Your task to perform on an android device: add a label to a message in the gmail app Image 0: 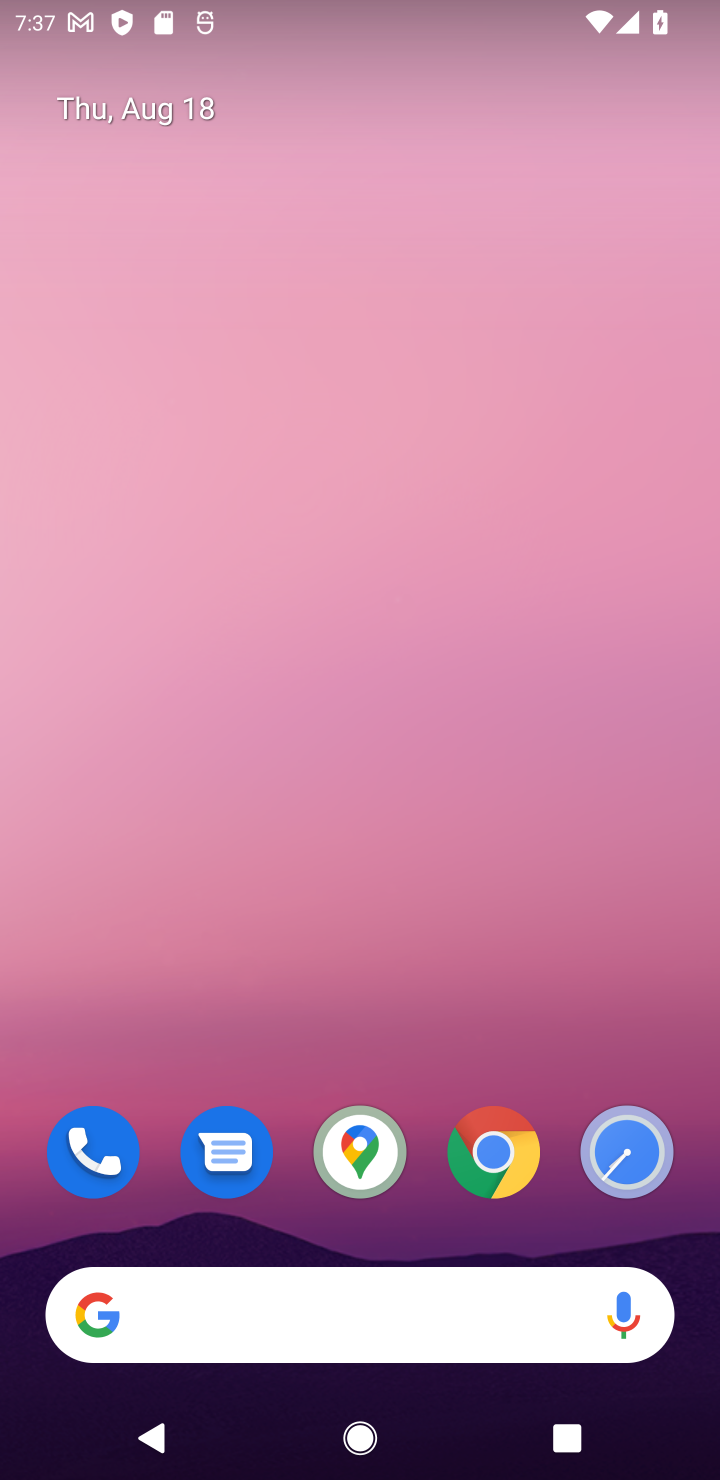
Step 0: drag from (445, 475) to (525, 2)
Your task to perform on an android device: add a label to a message in the gmail app Image 1: 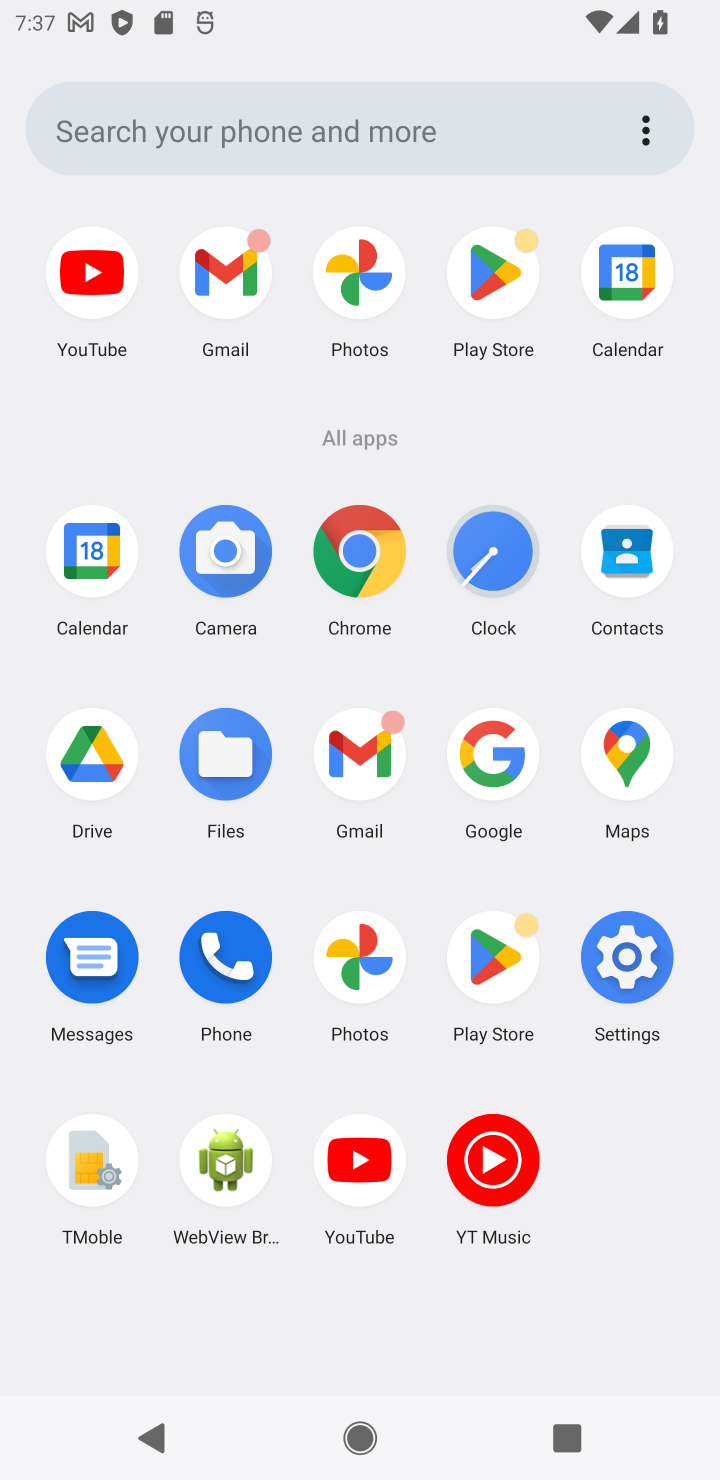
Step 1: click (236, 275)
Your task to perform on an android device: add a label to a message in the gmail app Image 2: 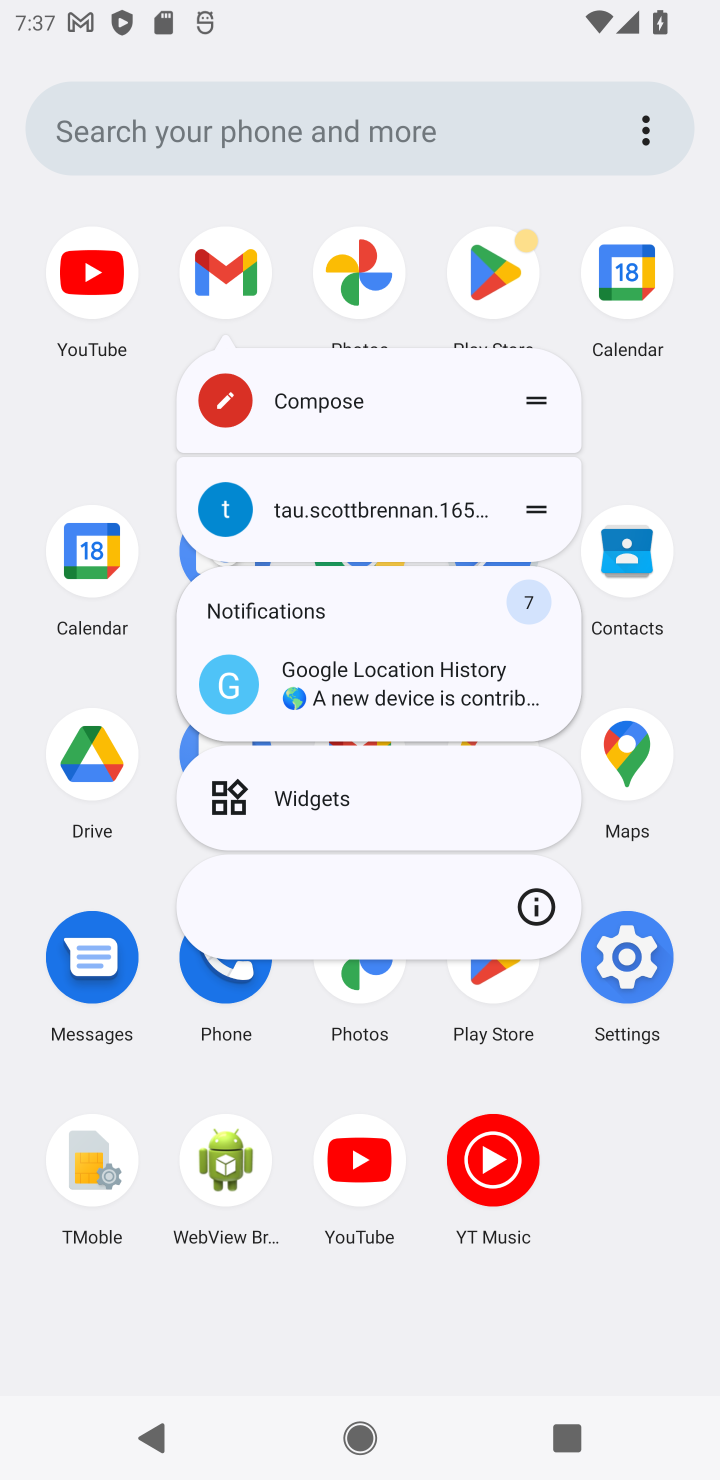
Step 2: click (236, 269)
Your task to perform on an android device: add a label to a message in the gmail app Image 3: 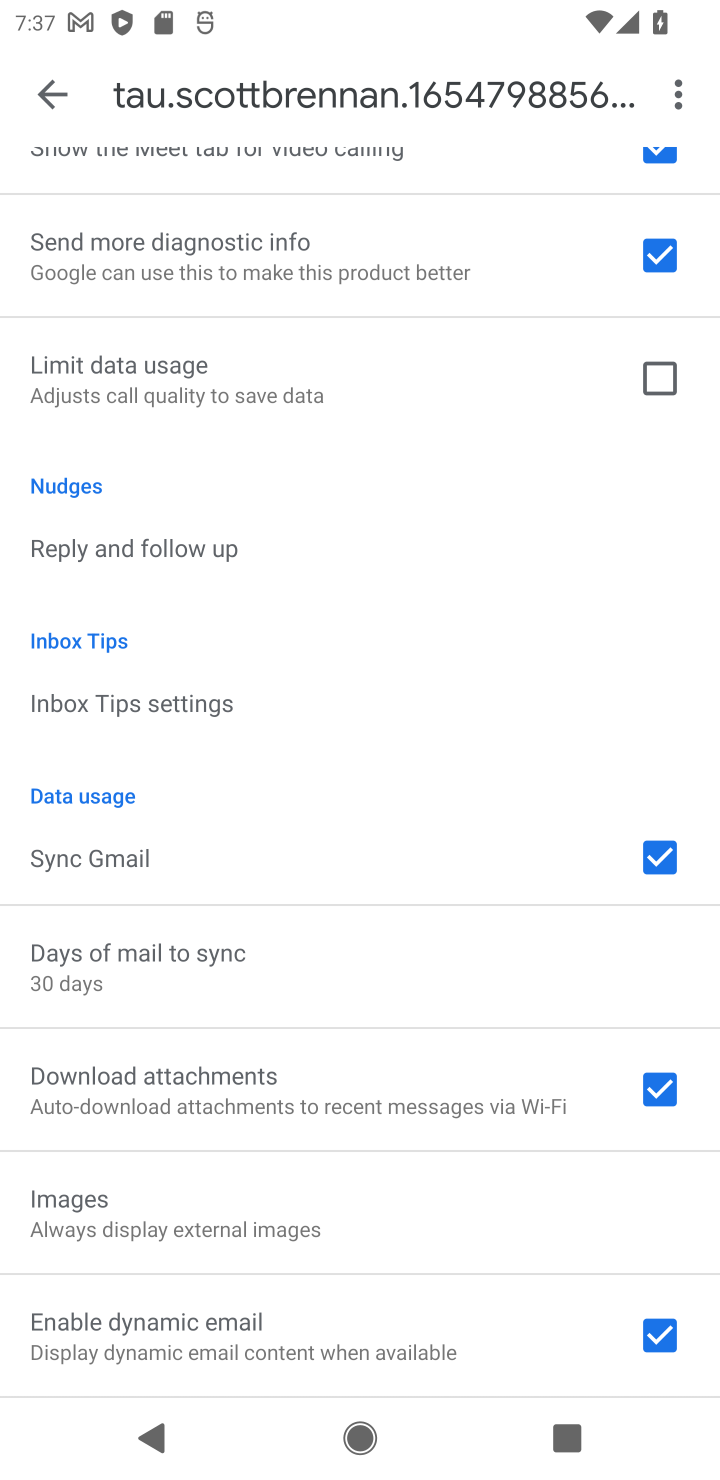
Step 3: press back button
Your task to perform on an android device: add a label to a message in the gmail app Image 4: 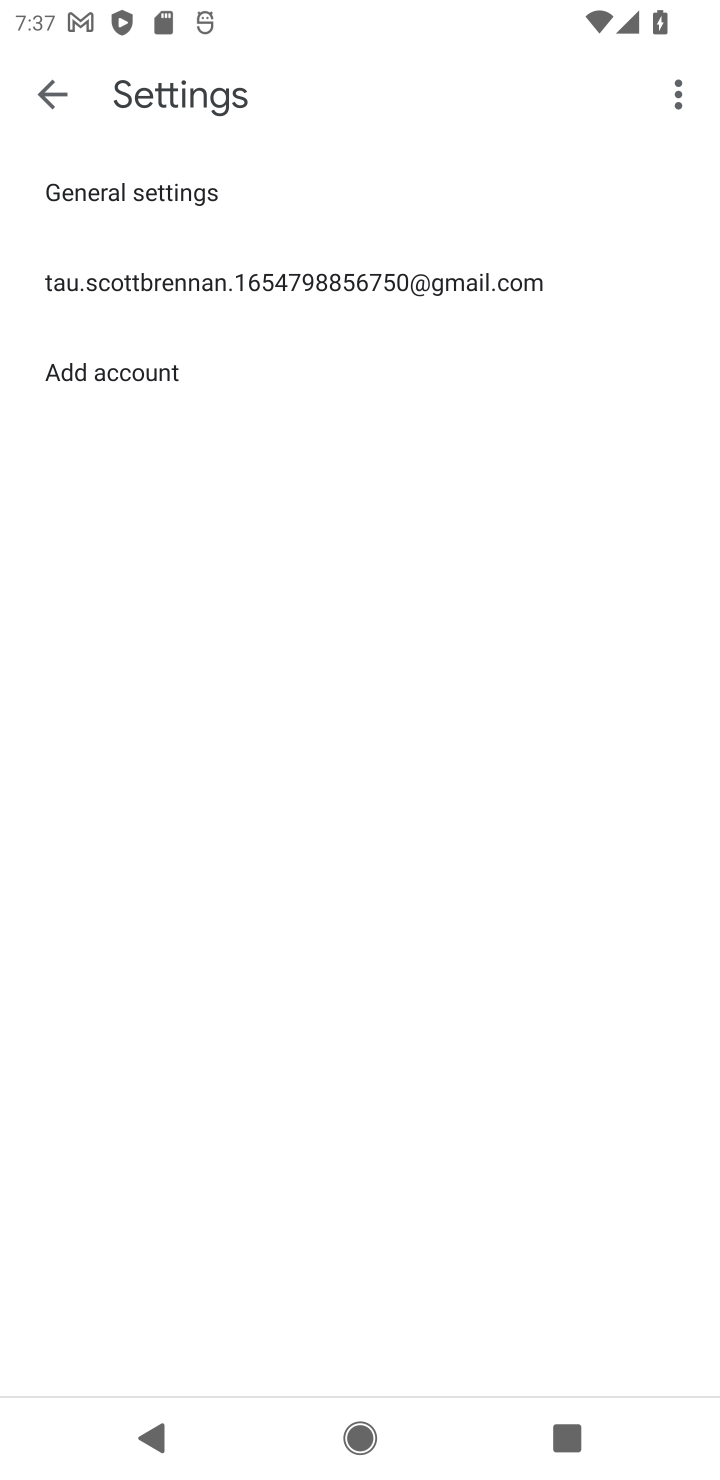
Step 4: press back button
Your task to perform on an android device: add a label to a message in the gmail app Image 5: 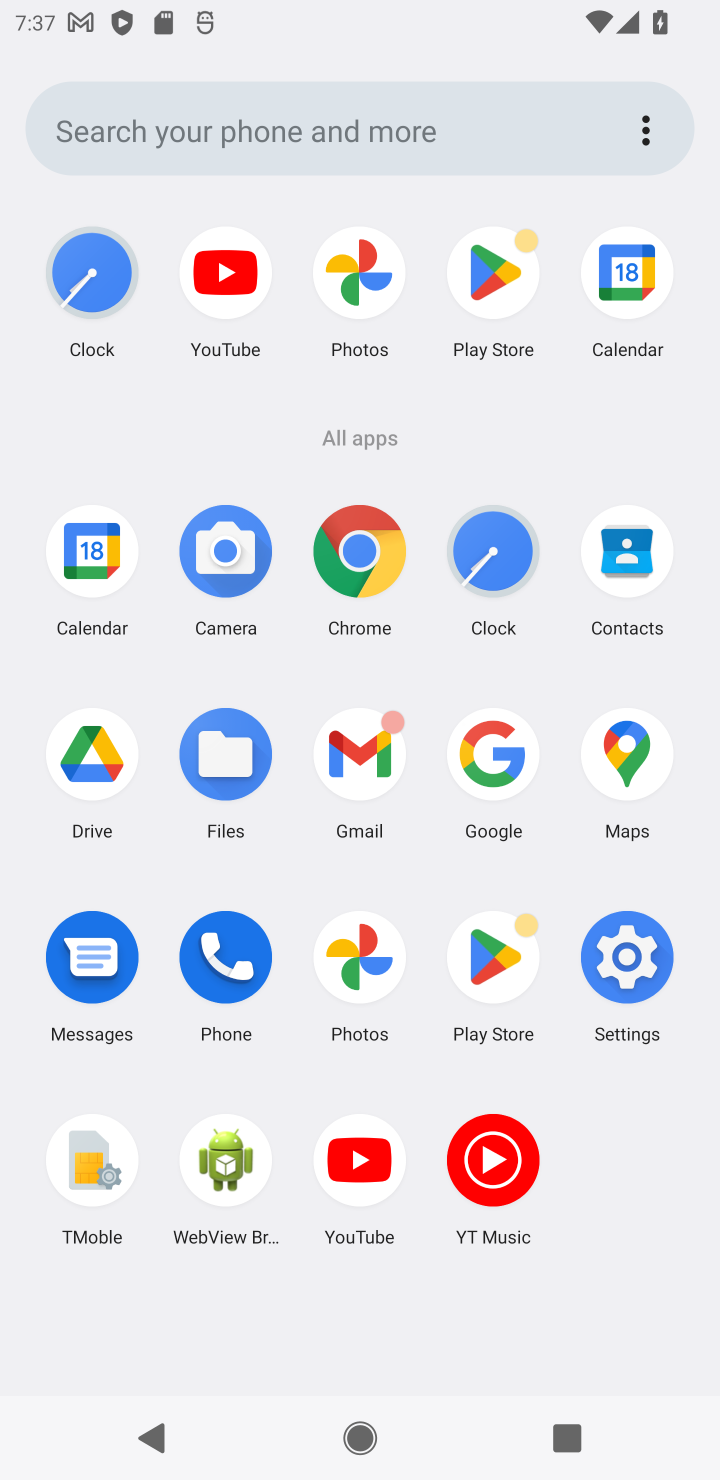
Step 5: click (345, 761)
Your task to perform on an android device: add a label to a message in the gmail app Image 6: 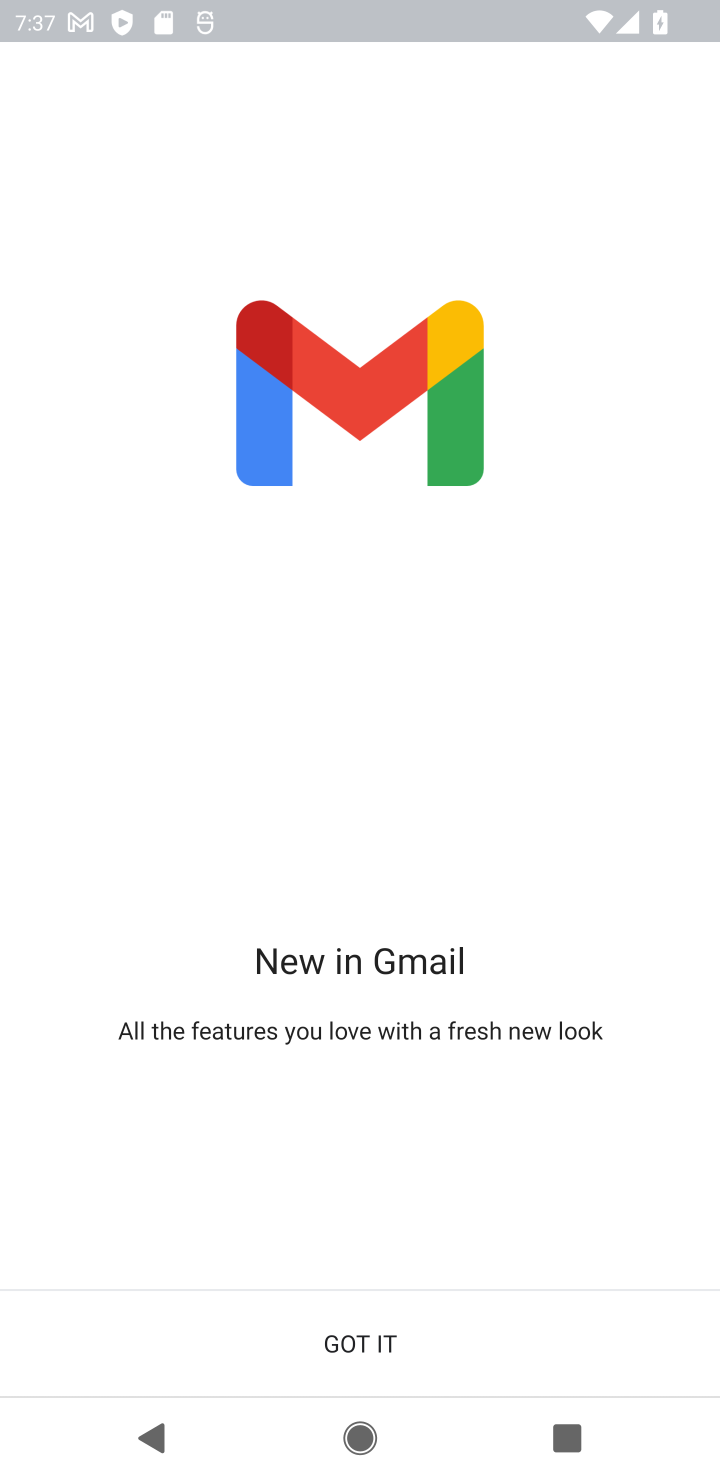
Step 6: click (359, 1365)
Your task to perform on an android device: add a label to a message in the gmail app Image 7: 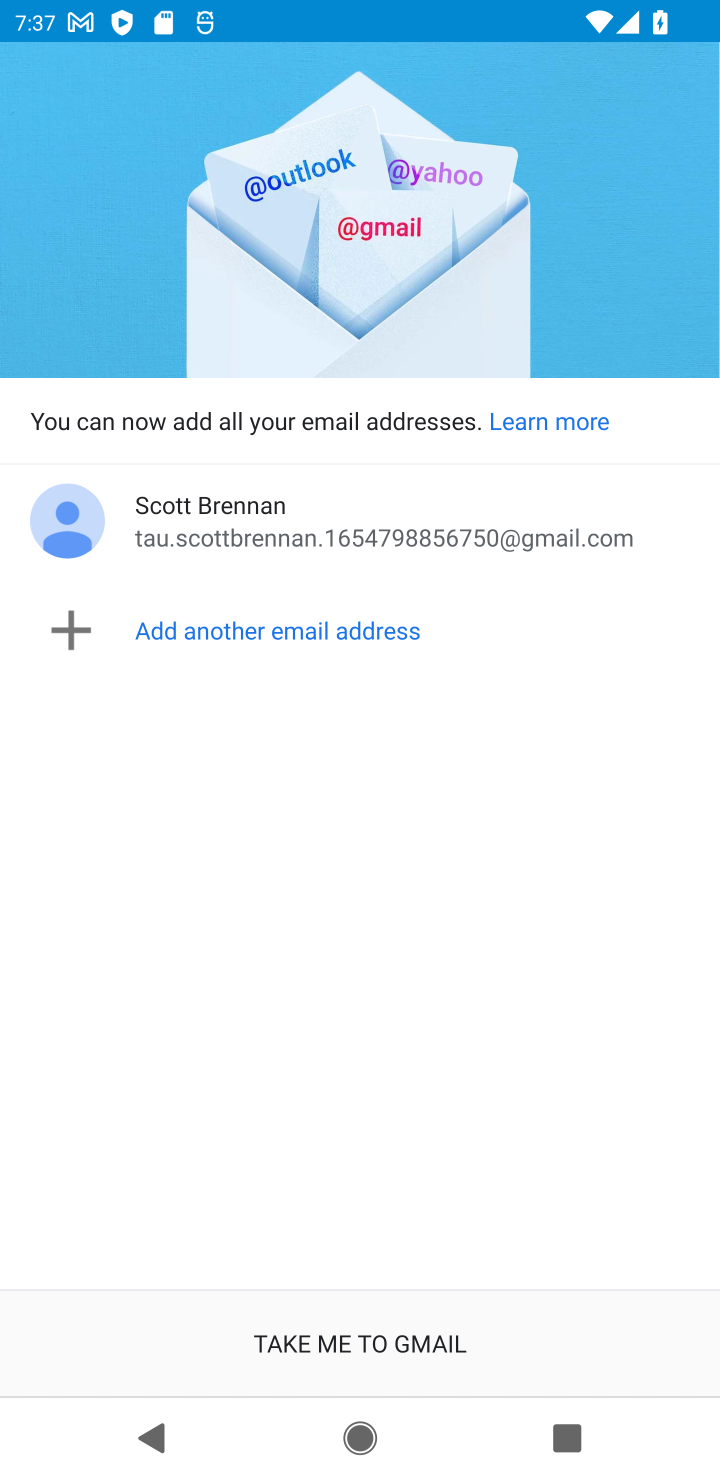
Step 7: click (439, 1339)
Your task to perform on an android device: add a label to a message in the gmail app Image 8: 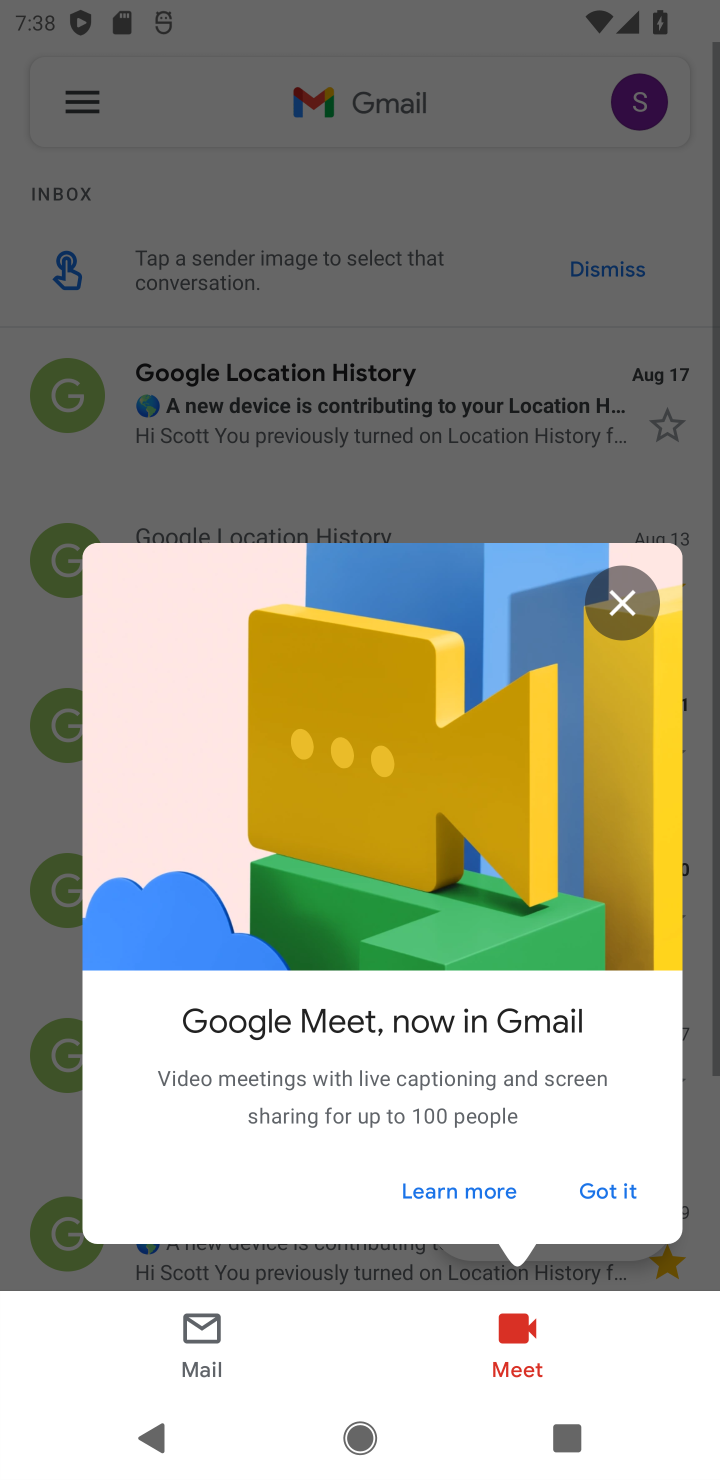
Step 8: click (616, 610)
Your task to perform on an android device: add a label to a message in the gmail app Image 9: 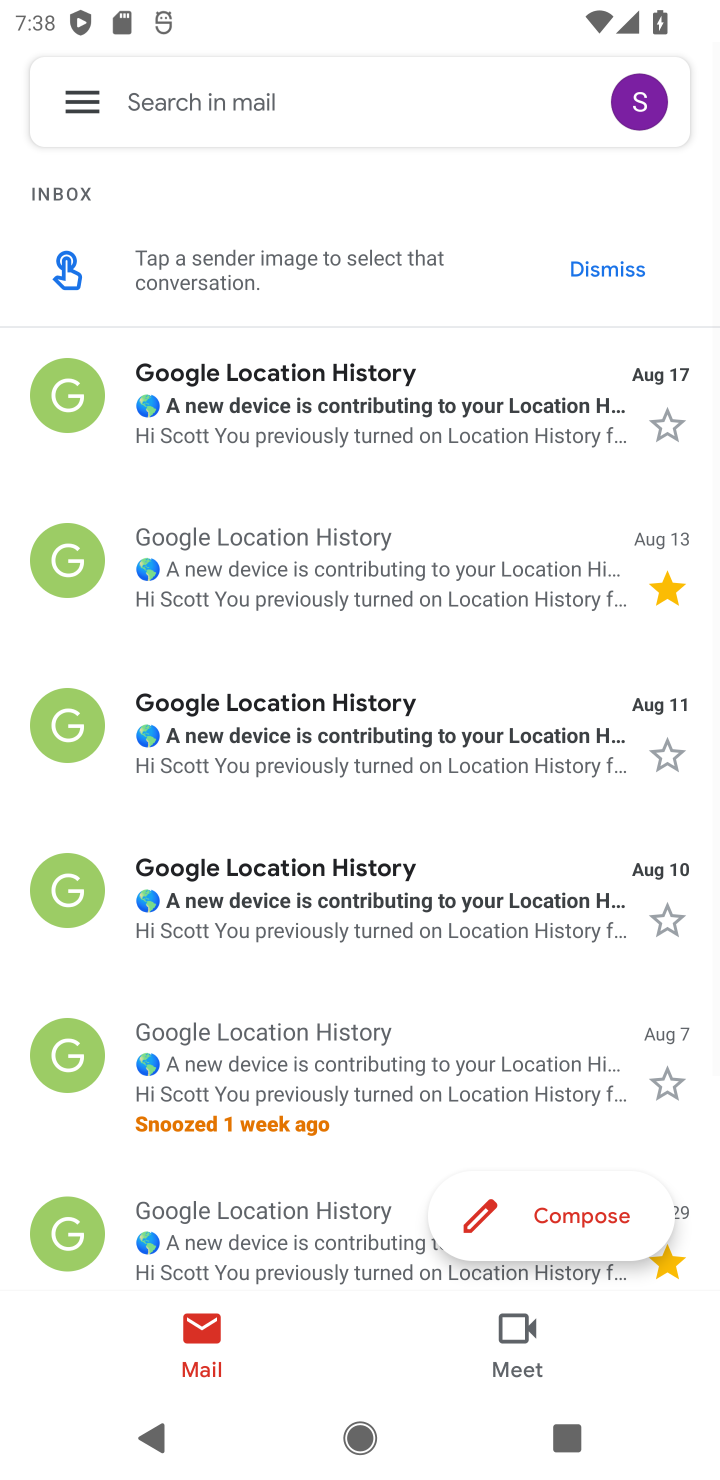
Step 9: click (267, 725)
Your task to perform on an android device: add a label to a message in the gmail app Image 10: 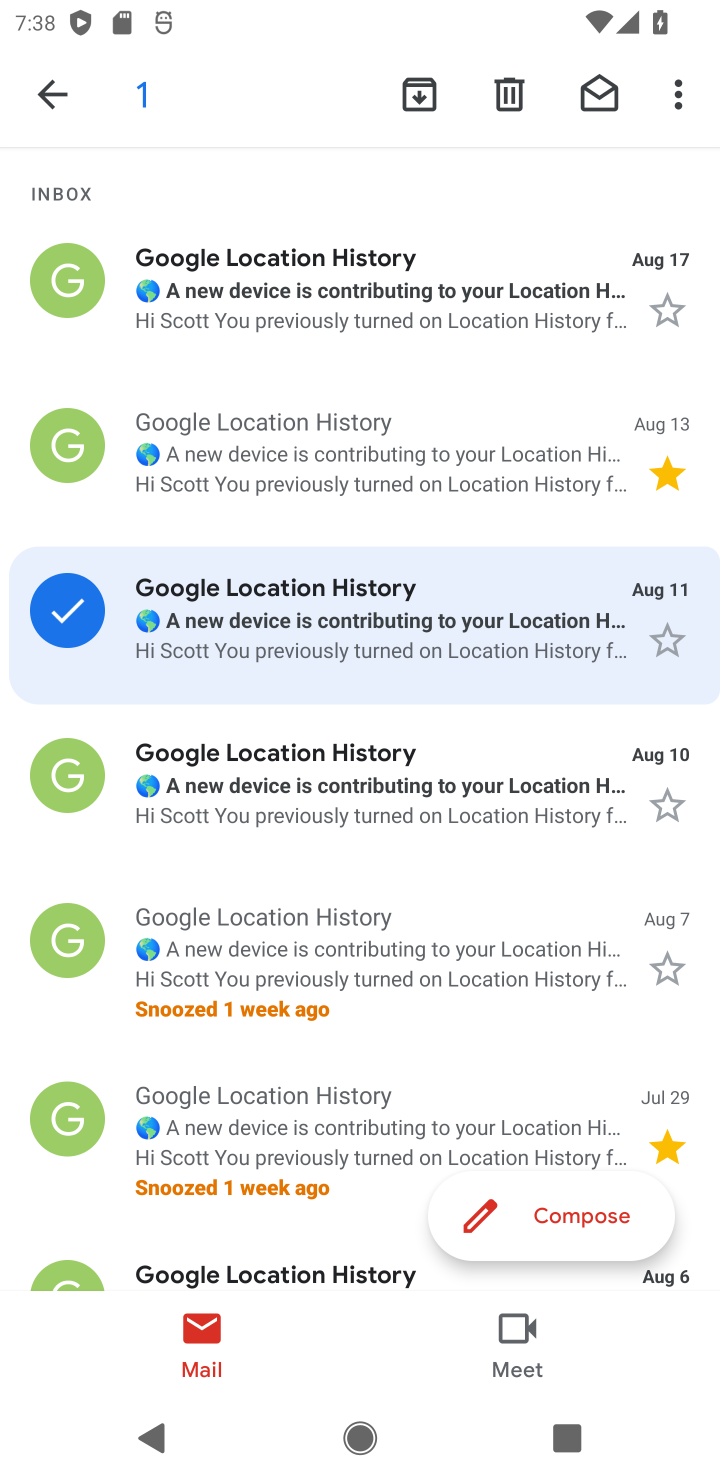
Step 10: click (266, 628)
Your task to perform on an android device: add a label to a message in the gmail app Image 11: 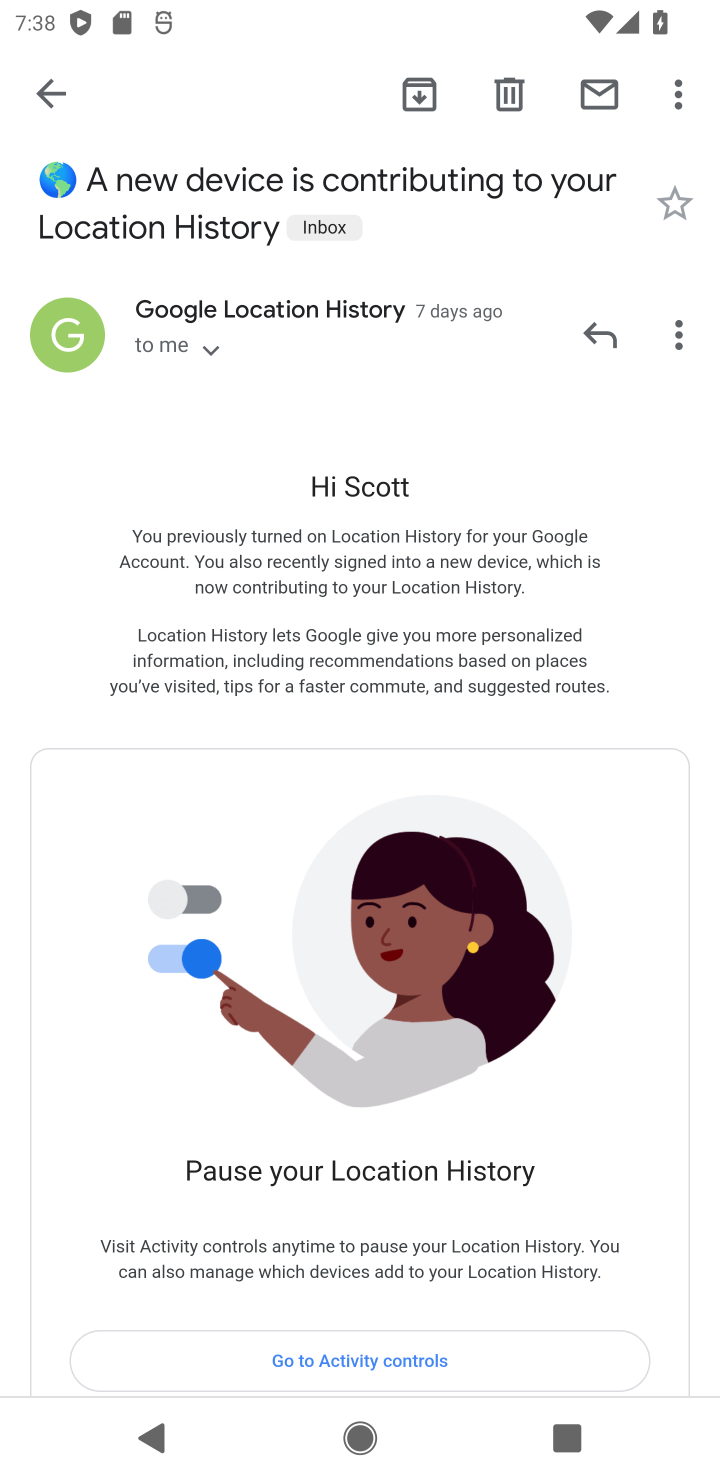
Step 11: click (681, 93)
Your task to perform on an android device: add a label to a message in the gmail app Image 12: 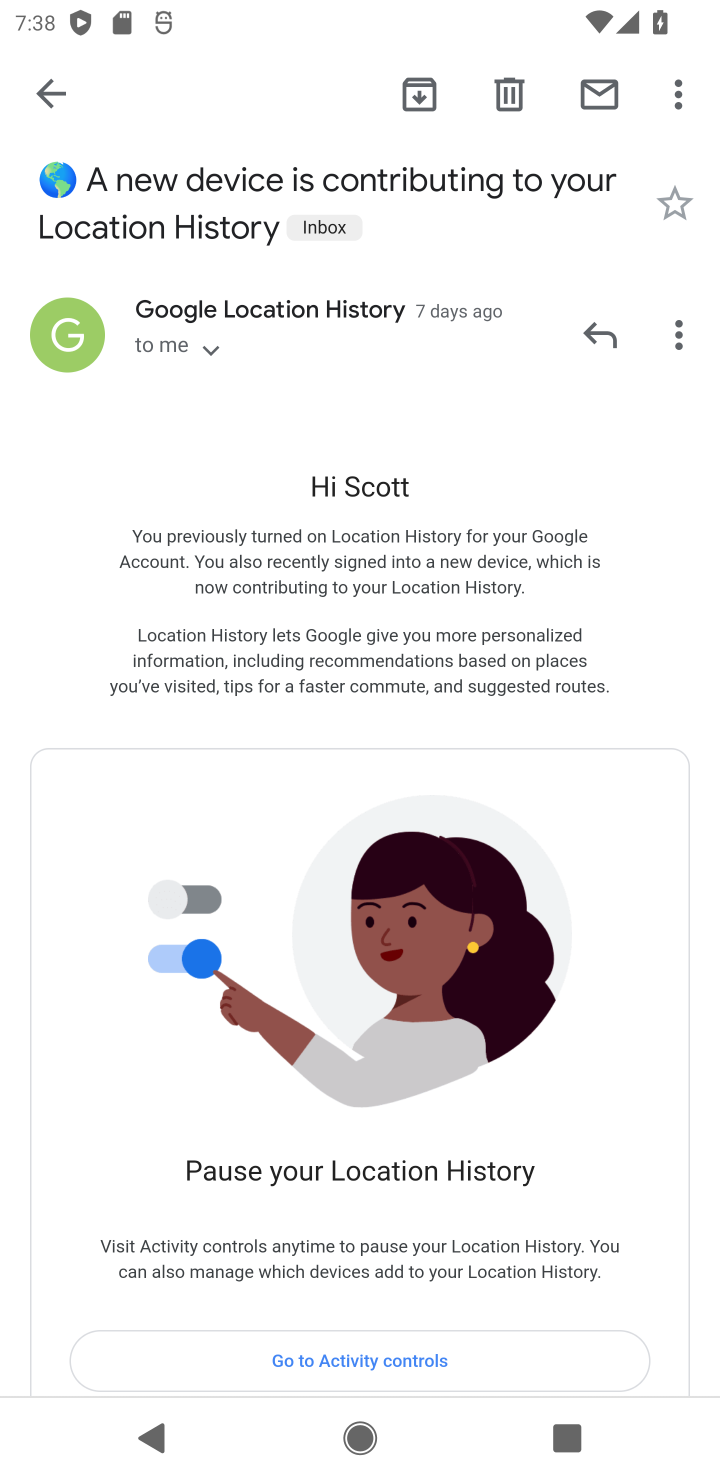
Step 12: click (681, 92)
Your task to perform on an android device: add a label to a message in the gmail app Image 13: 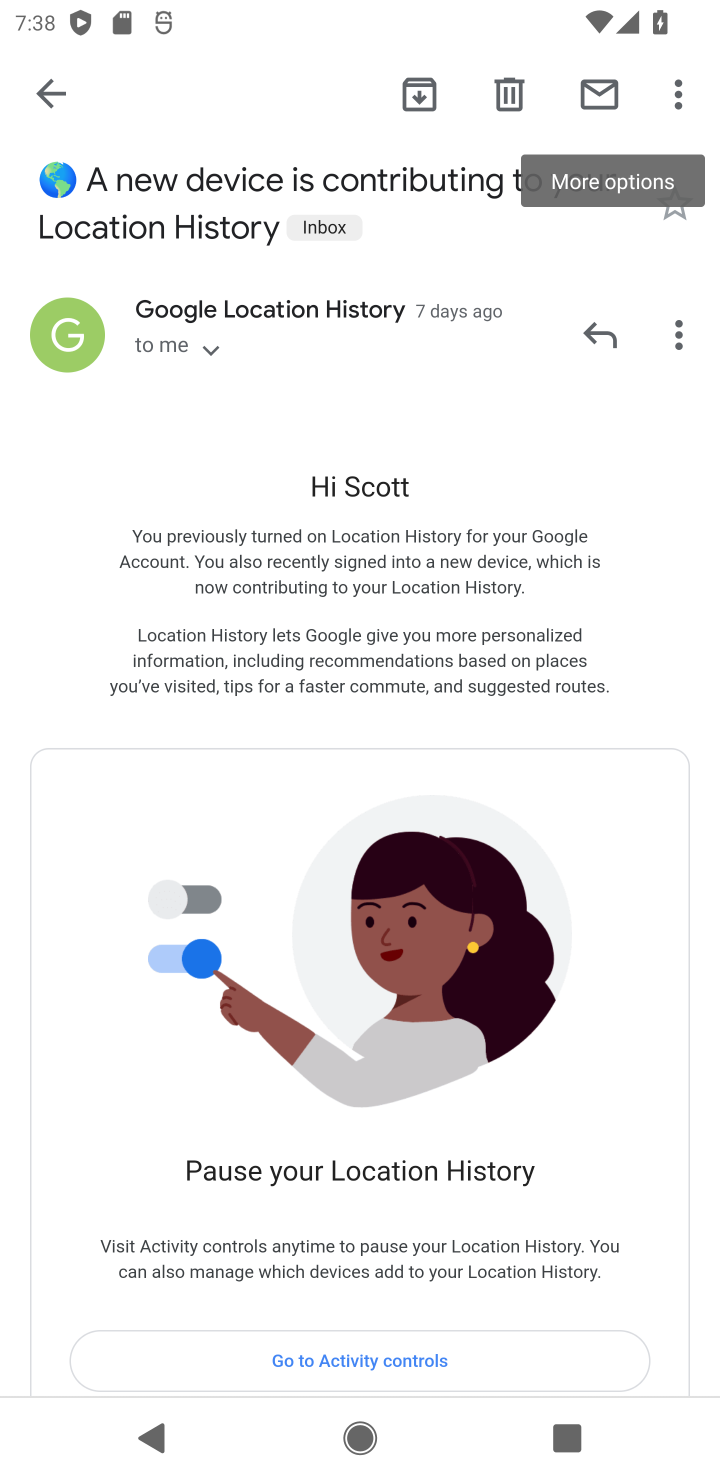
Step 13: click (681, 92)
Your task to perform on an android device: add a label to a message in the gmail app Image 14: 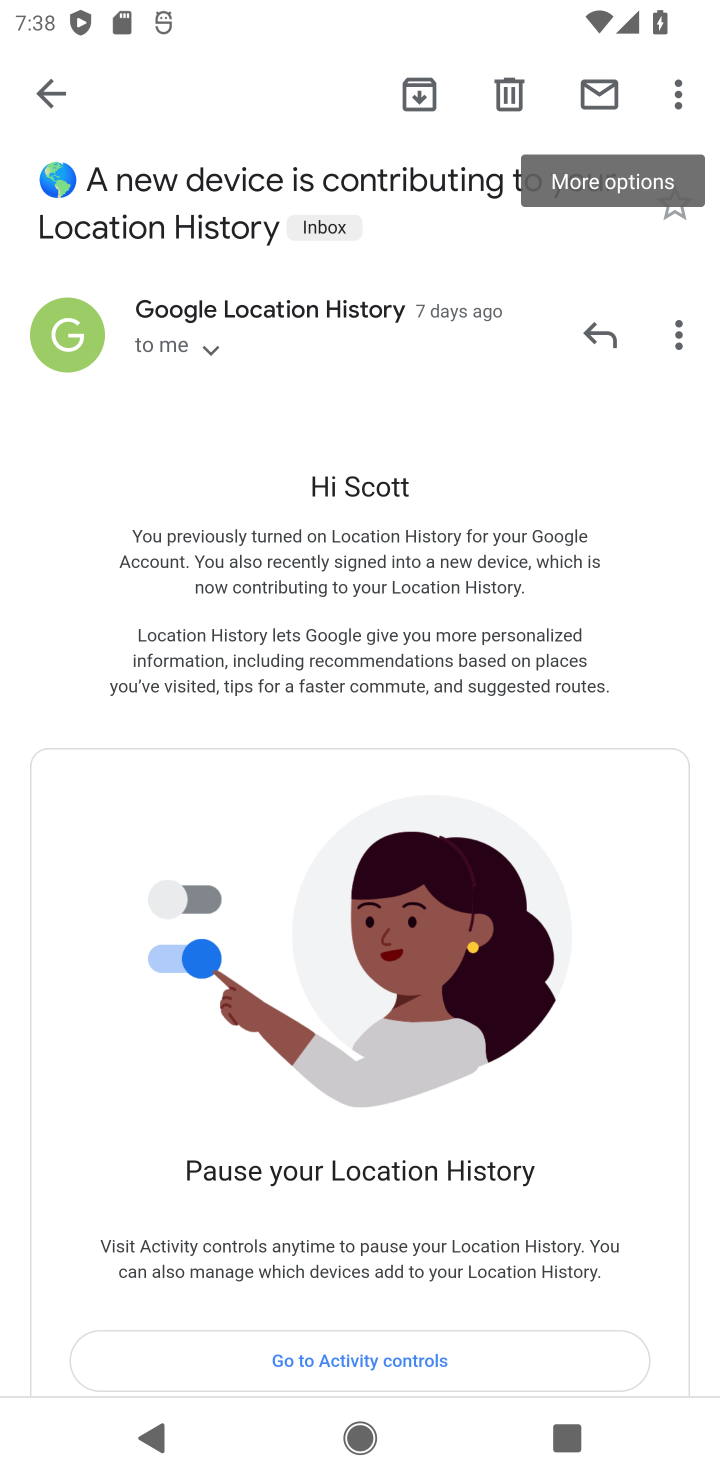
Step 14: click (671, 110)
Your task to perform on an android device: add a label to a message in the gmail app Image 15: 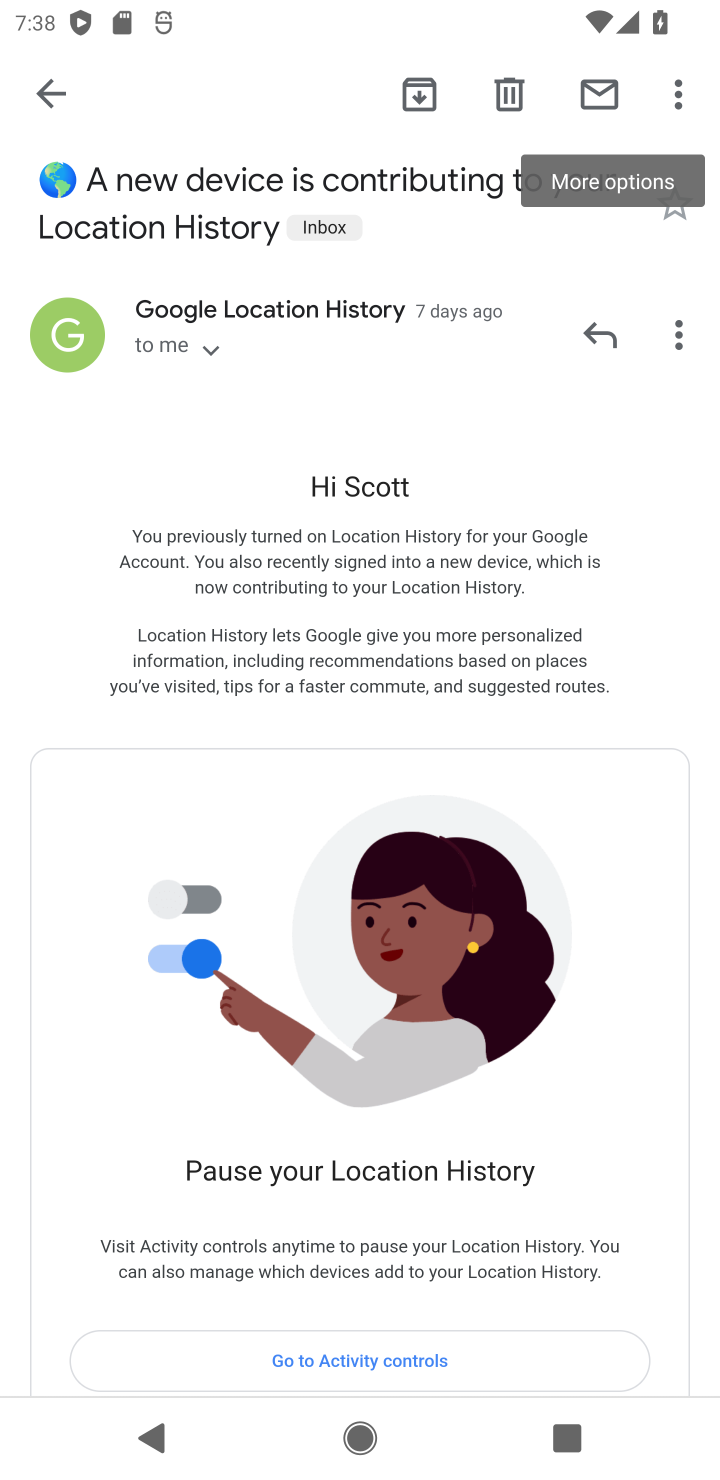
Step 15: task complete